Your task to perform on an android device: Open battery settings Image 0: 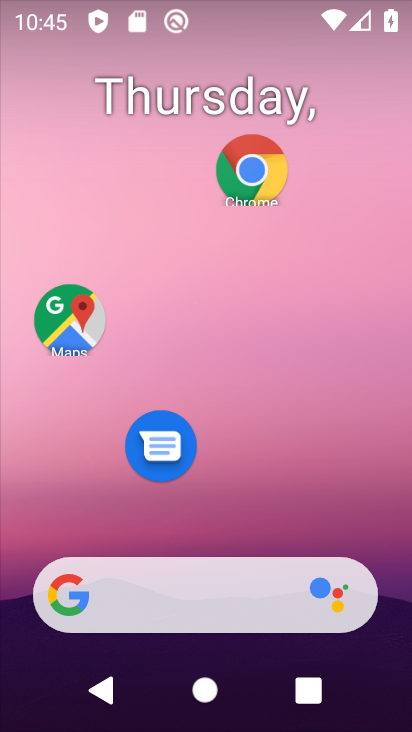
Step 0: drag from (184, 465) to (184, 151)
Your task to perform on an android device: Open battery settings Image 1: 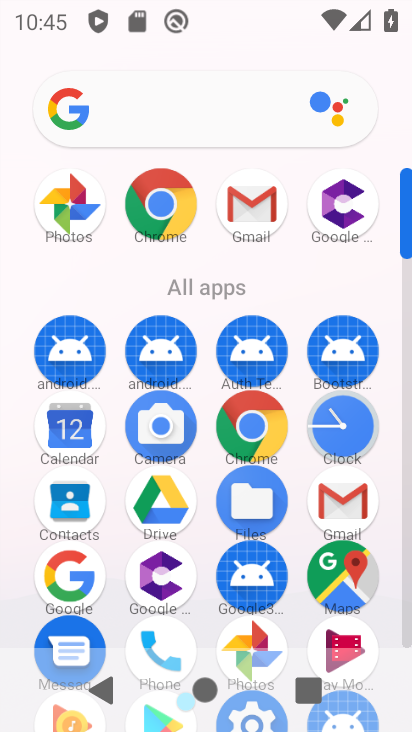
Step 1: drag from (205, 611) to (193, 228)
Your task to perform on an android device: Open battery settings Image 2: 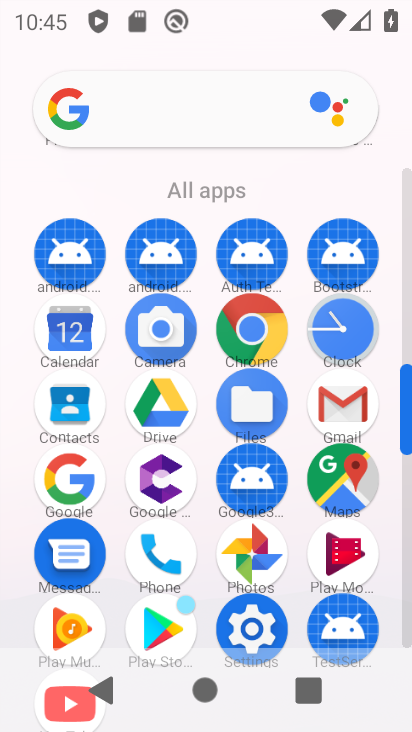
Step 2: click (245, 633)
Your task to perform on an android device: Open battery settings Image 3: 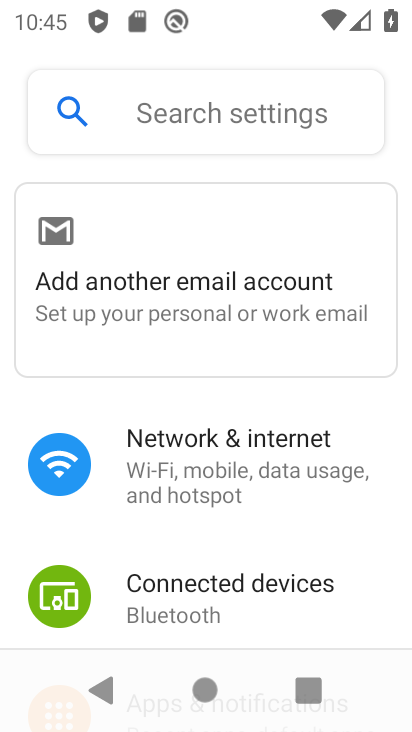
Step 3: drag from (296, 623) to (262, 230)
Your task to perform on an android device: Open battery settings Image 4: 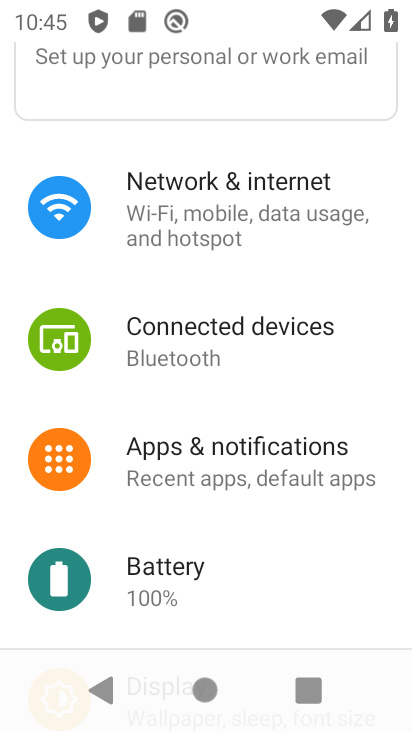
Step 4: click (138, 581)
Your task to perform on an android device: Open battery settings Image 5: 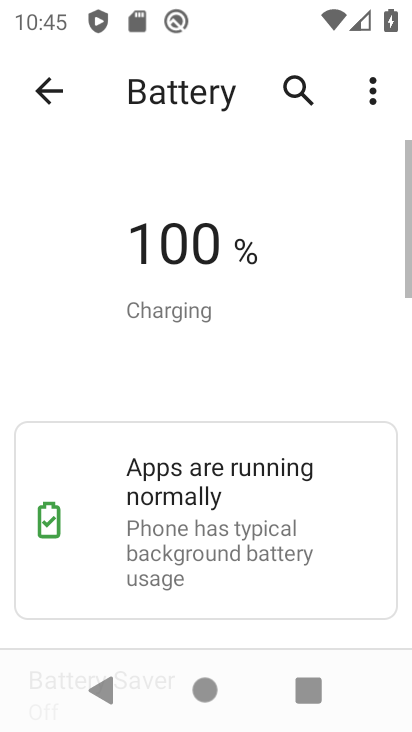
Step 5: drag from (249, 629) to (270, 259)
Your task to perform on an android device: Open battery settings Image 6: 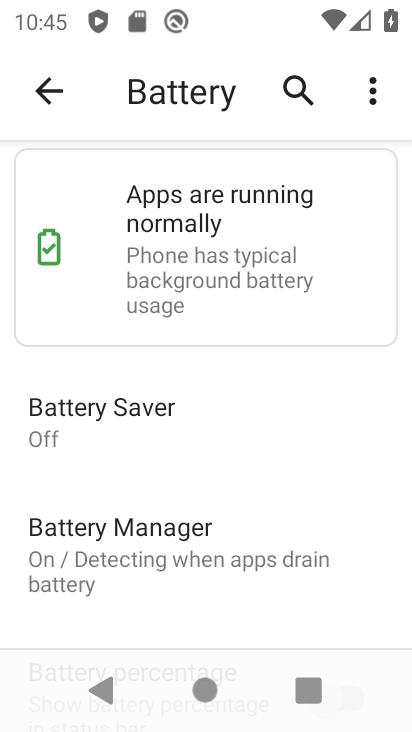
Step 6: drag from (278, 616) to (293, 141)
Your task to perform on an android device: Open battery settings Image 7: 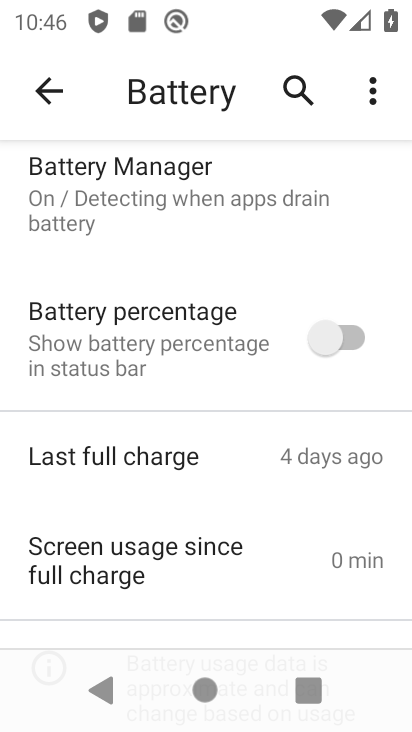
Step 7: click (223, 283)
Your task to perform on an android device: Open battery settings Image 8: 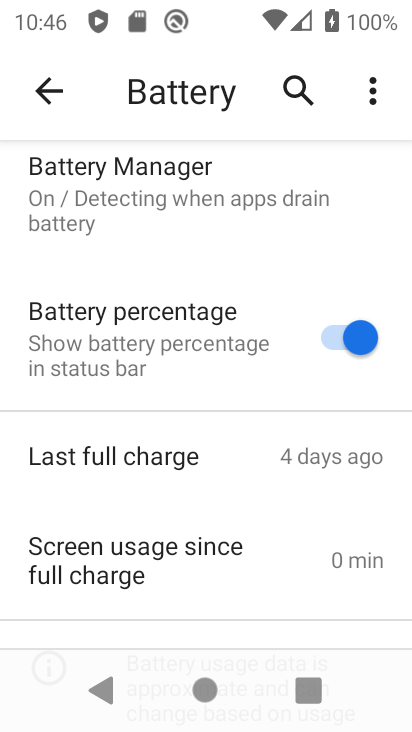
Step 8: task complete